Your task to perform on an android device: Open Amazon Image 0: 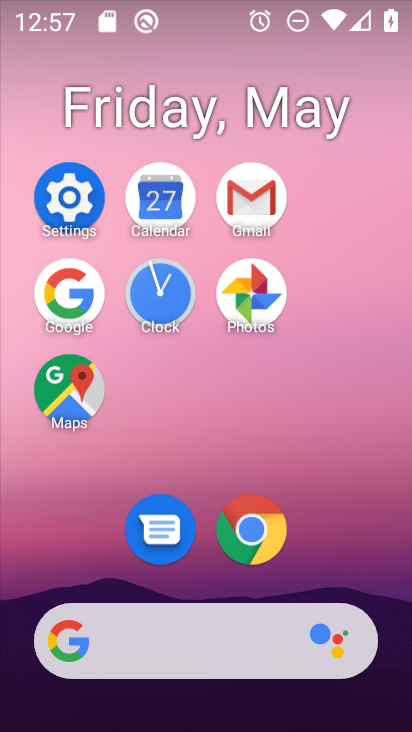
Step 0: click (238, 540)
Your task to perform on an android device: Open Amazon Image 1: 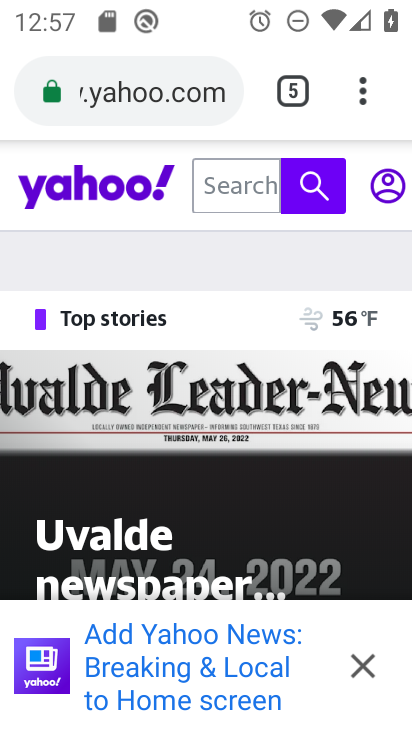
Step 1: click (288, 92)
Your task to perform on an android device: Open Amazon Image 2: 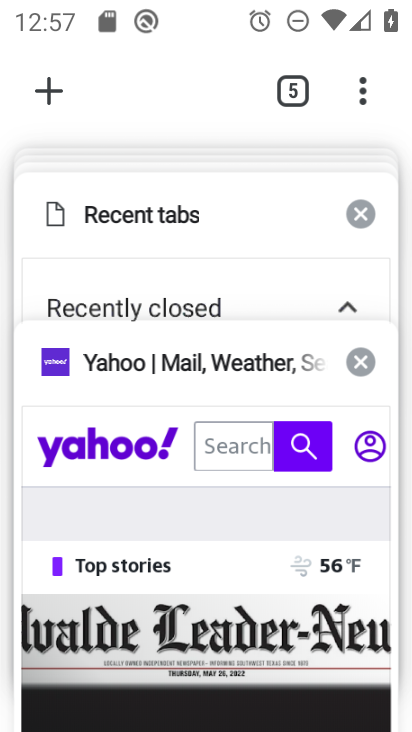
Step 2: drag from (230, 335) to (254, 596)
Your task to perform on an android device: Open Amazon Image 3: 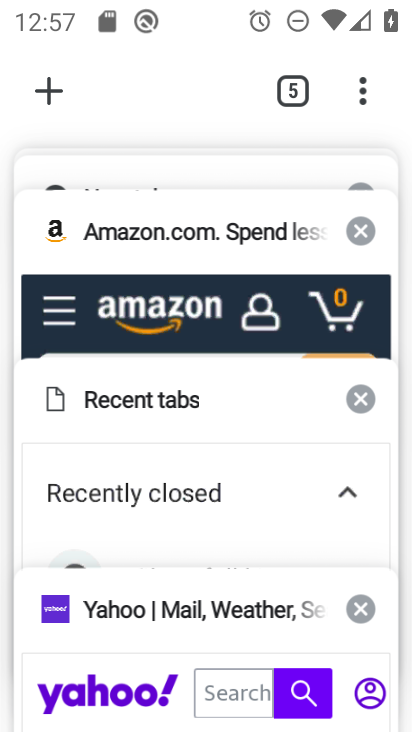
Step 3: click (126, 217)
Your task to perform on an android device: Open Amazon Image 4: 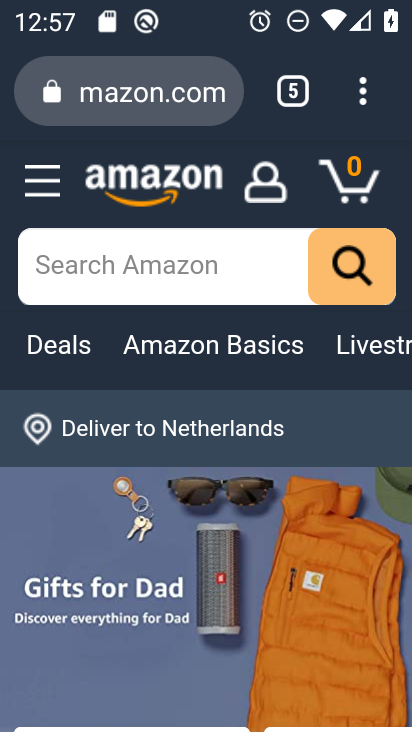
Step 4: task complete